Your task to perform on an android device: turn off airplane mode Image 0: 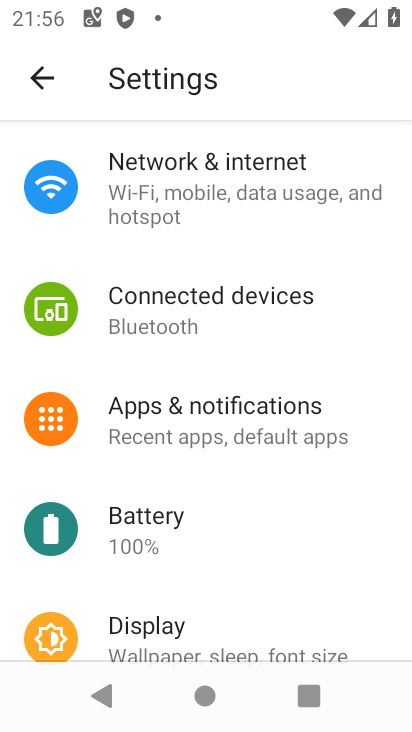
Step 0: click (223, 209)
Your task to perform on an android device: turn off airplane mode Image 1: 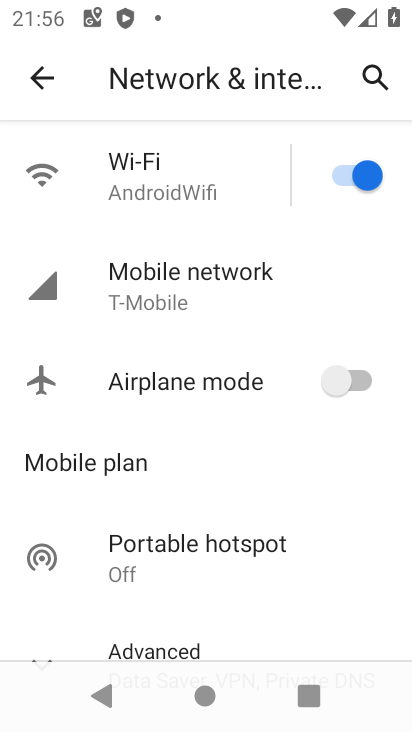
Step 1: task complete